Your task to perform on an android device: turn pop-ups off in chrome Image 0: 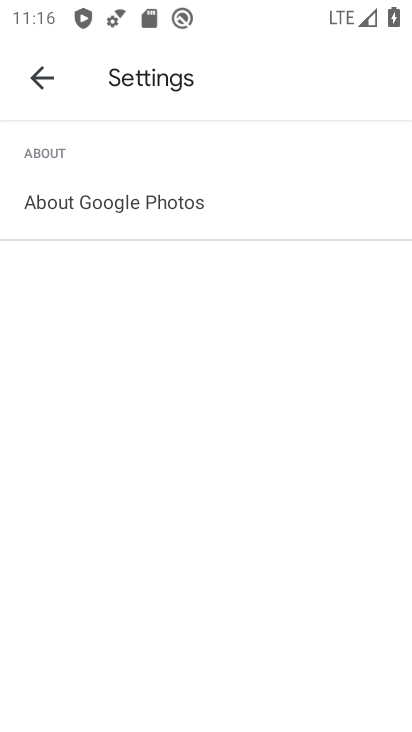
Step 0: press home button
Your task to perform on an android device: turn pop-ups off in chrome Image 1: 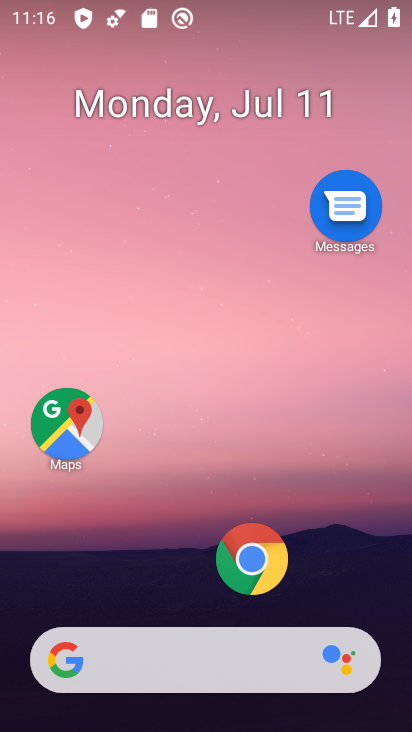
Step 1: drag from (358, 549) to (359, 128)
Your task to perform on an android device: turn pop-ups off in chrome Image 2: 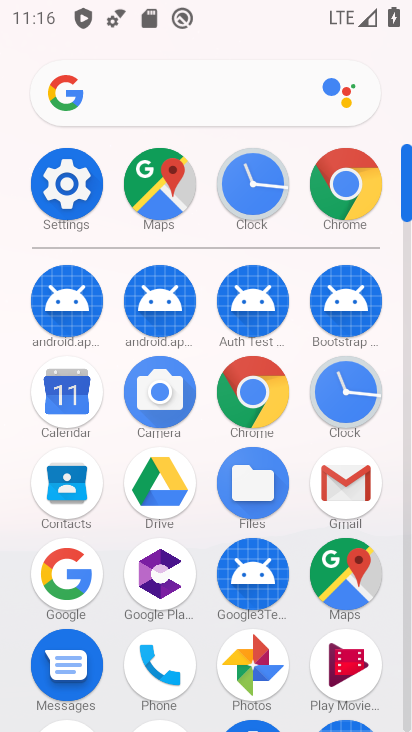
Step 2: click (273, 395)
Your task to perform on an android device: turn pop-ups off in chrome Image 3: 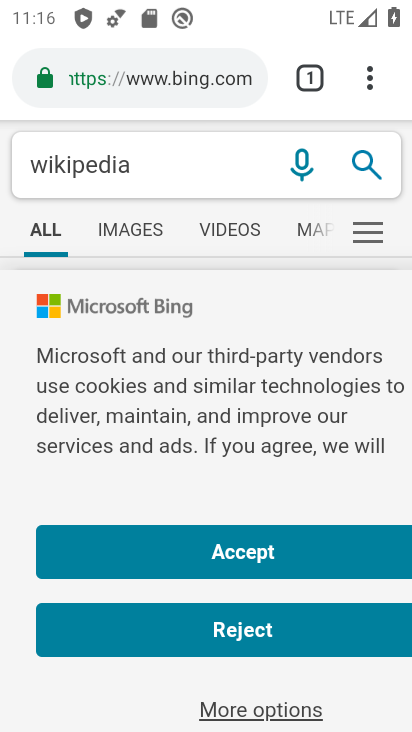
Step 3: click (369, 85)
Your task to perform on an android device: turn pop-ups off in chrome Image 4: 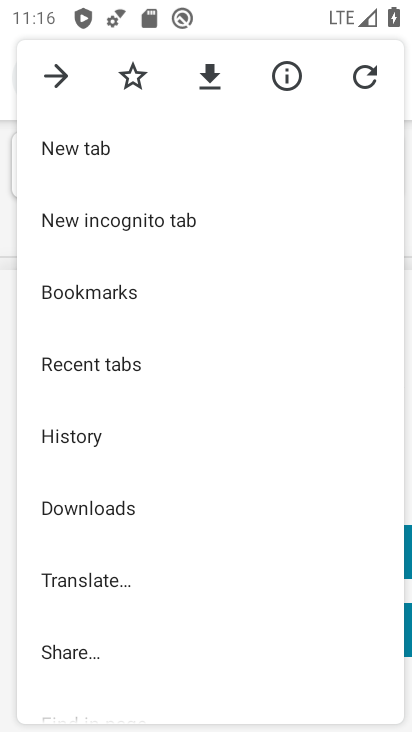
Step 4: drag from (300, 359) to (306, 263)
Your task to perform on an android device: turn pop-ups off in chrome Image 5: 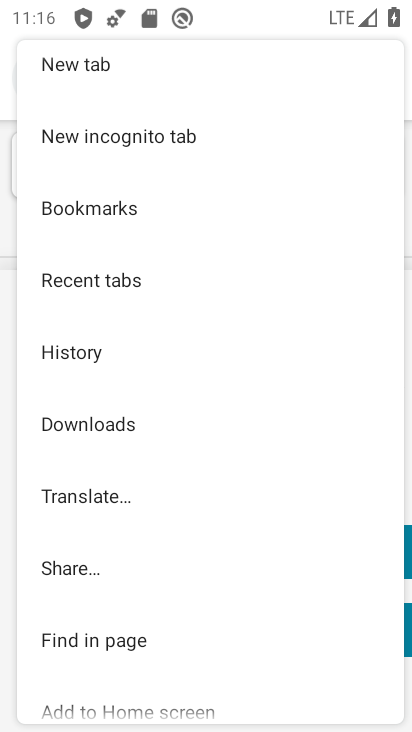
Step 5: drag from (295, 394) to (302, 103)
Your task to perform on an android device: turn pop-ups off in chrome Image 6: 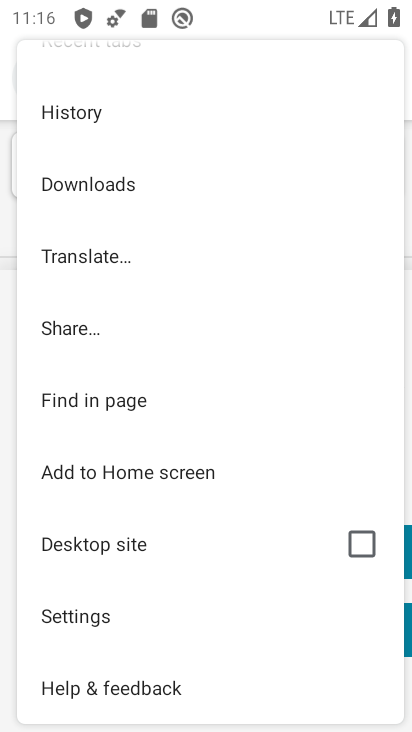
Step 6: click (141, 616)
Your task to perform on an android device: turn pop-ups off in chrome Image 7: 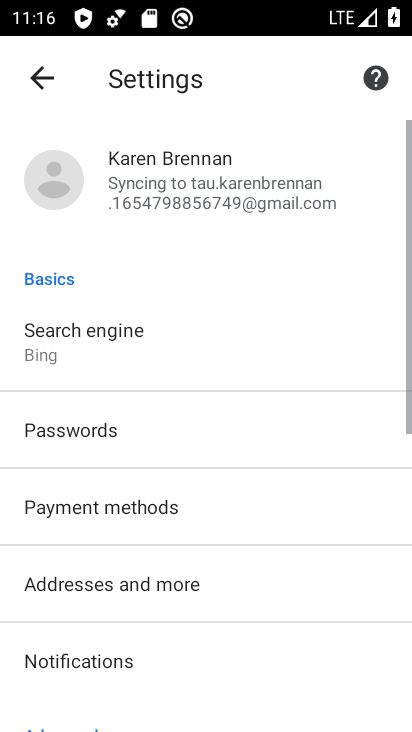
Step 7: drag from (332, 509) to (331, 423)
Your task to perform on an android device: turn pop-ups off in chrome Image 8: 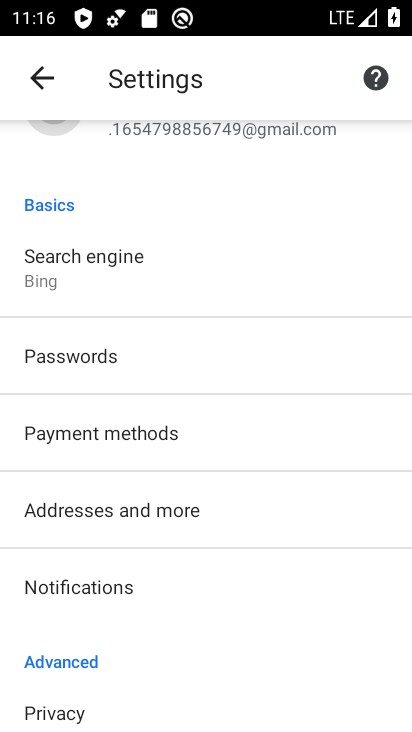
Step 8: drag from (324, 557) to (322, 438)
Your task to perform on an android device: turn pop-ups off in chrome Image 9: 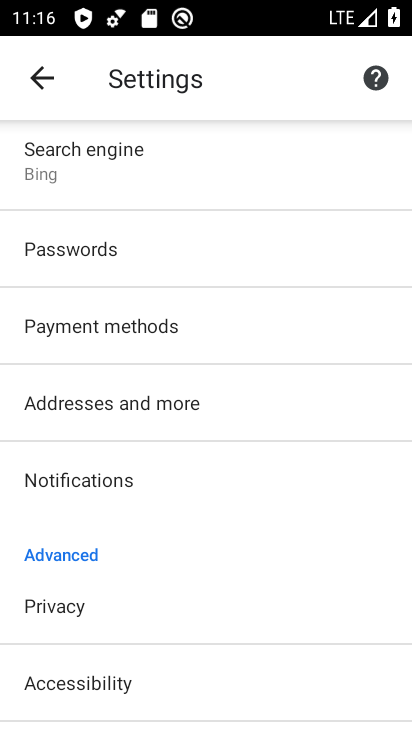
Step 9: drag from (314, 556) to (320, 430)
Your task to perform on an android device: turn pop-ups off in chrome Image 10: 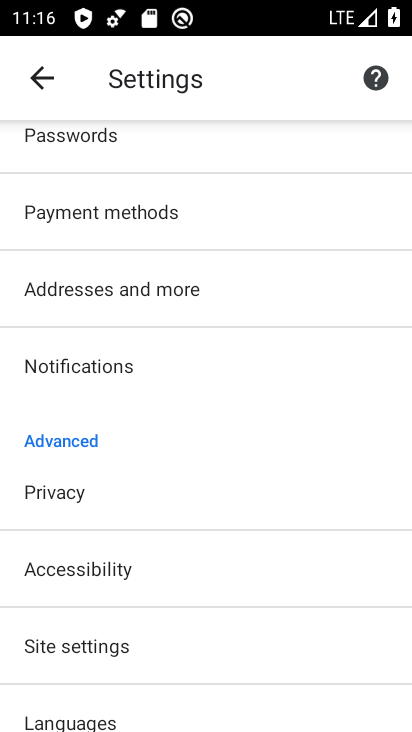
Step 10: drag from (293, 540) to (312, 254)
Your task to perform on an android device: turn pop-ups off in chrome Image 11: 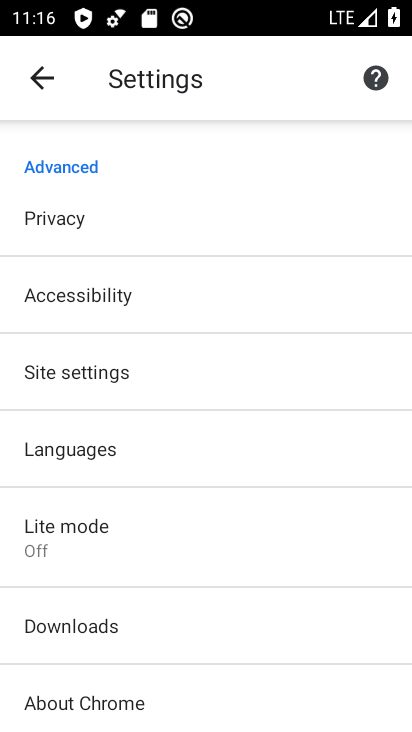
Step 11: click (300, 375)
Your task to perform on an android device: turn pop-ups off in chrome Image 12: 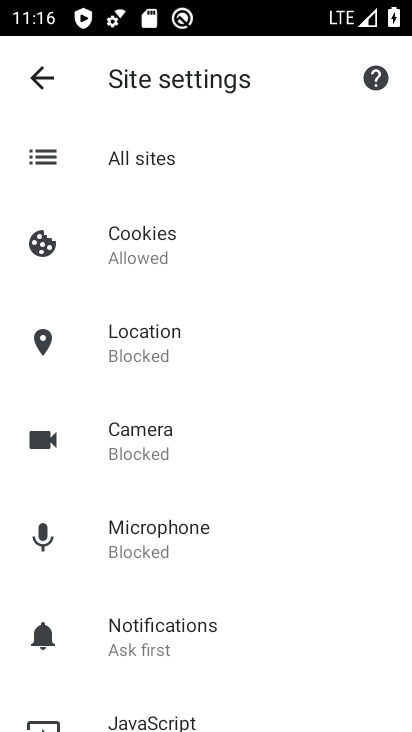
Step 12: drag from (286, 468) to (281, 337)
Your task to perform on an android device: turn pop-ups off in chrome Image 13: 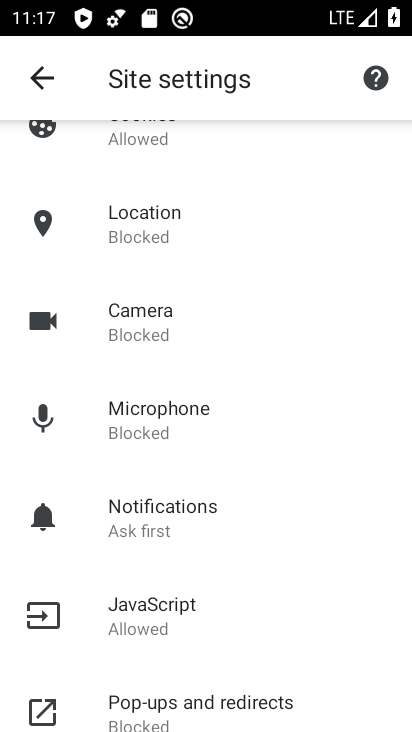
Step 13: drag from (280, 490) to (294, 256)
Your task to perform on an android device: turn pop-ups off in chrome Image 14: 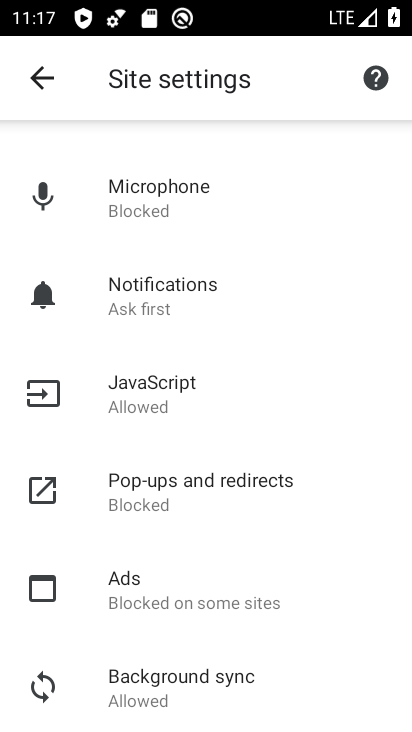
Step 14: click (282, 485)
Your task to perform on an android device: turn pop-ups off in chrome Image 15: 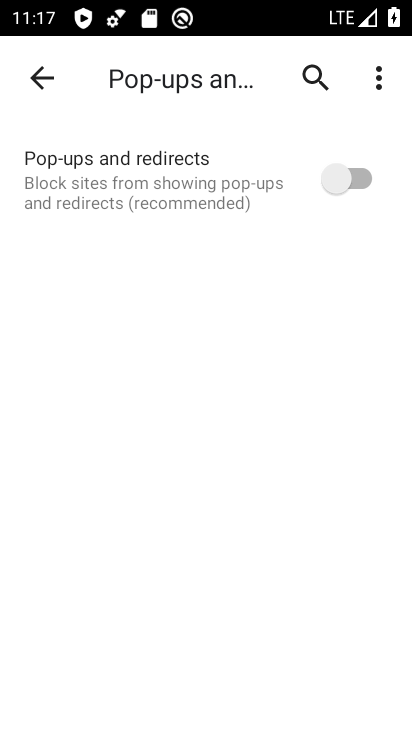
Step 15: task complete